Your task to perform on an android device: toggle javascript in the chrome app Image 0: 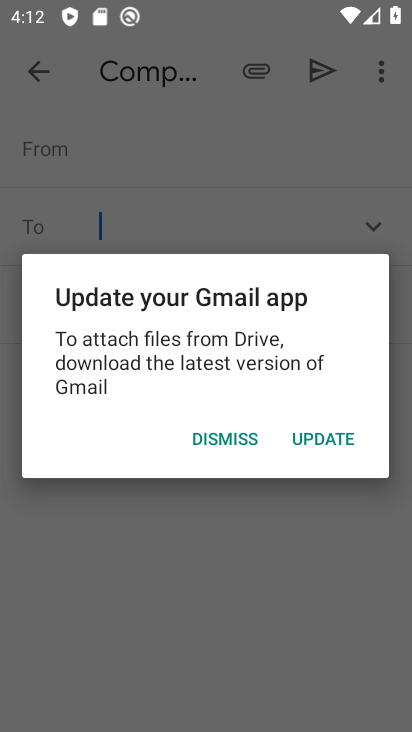
Step 0: press back button
Your task to perform on an android device: toggle javascript in the chrome app Image 1: 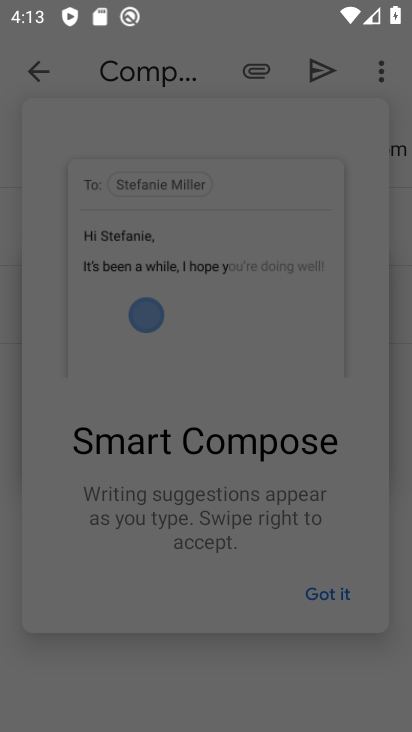
Step 1: press back button
Your task to perform on an android device: toggle javascript in the chrome app Image 2: 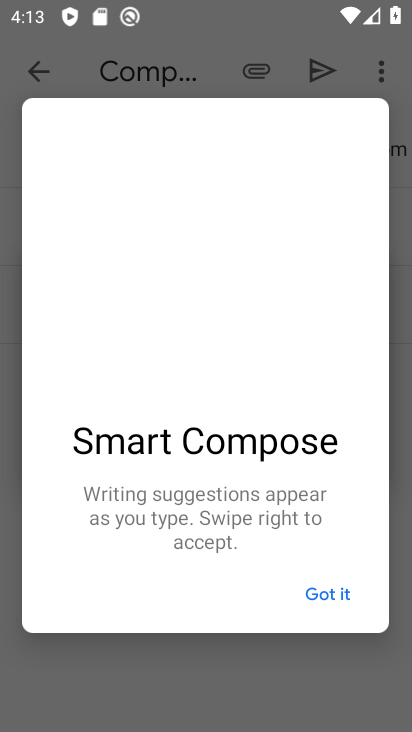
Step 2: press back button
Your task to perform on an android device: toggle javascript in the chrome app Image 3: 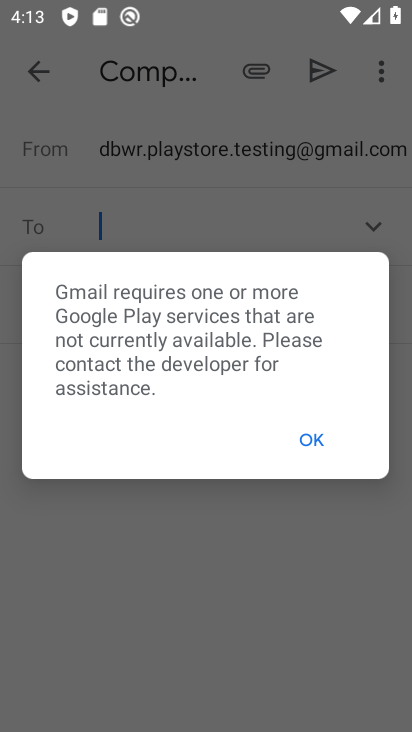
Step 3: press back button
Your task to perform on an android device: toggle javascript in the chrome app Image 4: 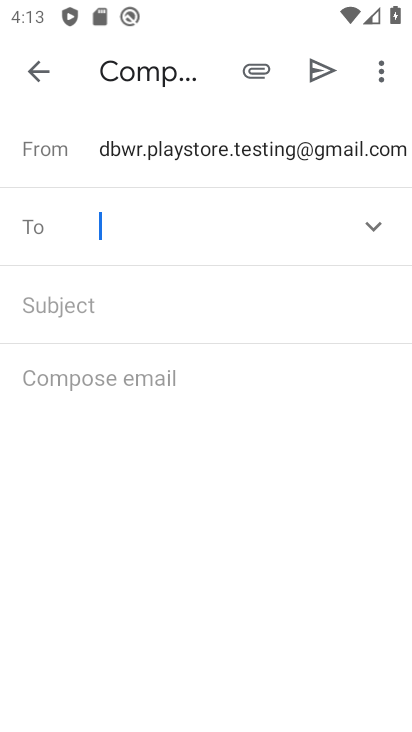
Step 4: press back button
Your task to perform on an android device: toggle javascript in the chrome app Image 5: 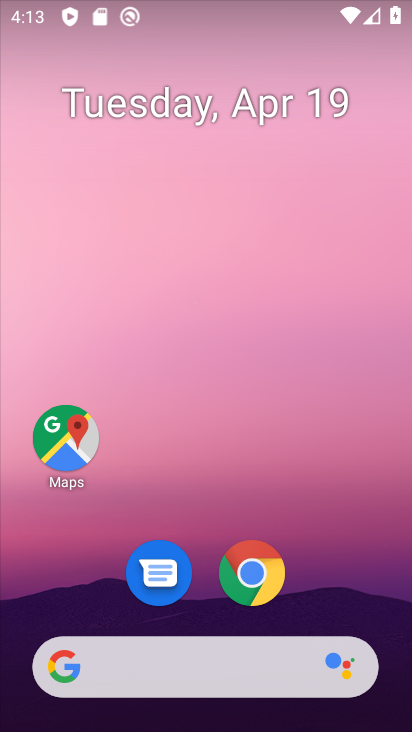
Step 5: click (270, 573)
Your task to perform on an android device: toggle javascript in the chrome app Image 6: 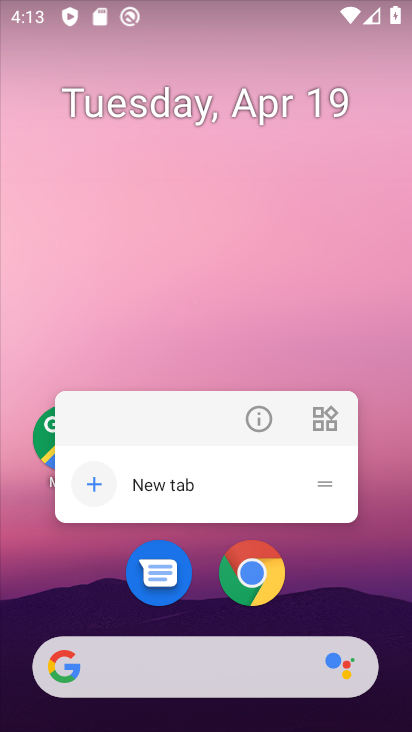
Step 6: click (279, 579)
Your task to perform on an android device: toggle javascript in the chrome app Image 7: 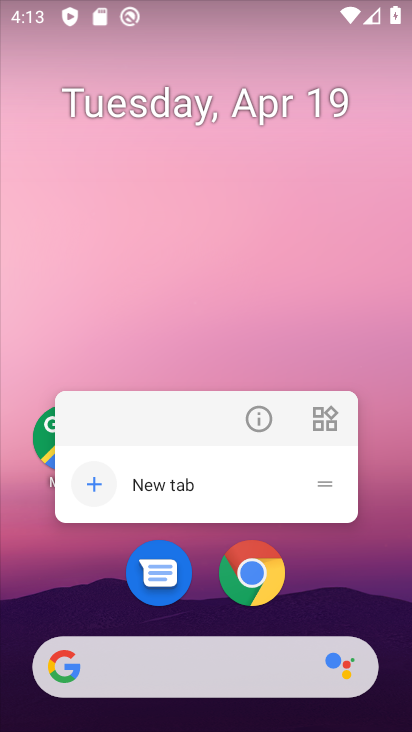
Step 7: click (268, 579)
Your task to perform on an android device: toggle javascript in the chrome app Image 8: 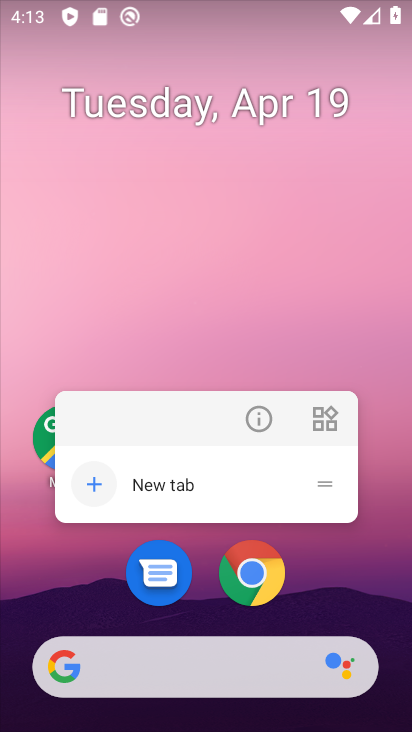
Step 8: click (264, 577)
Your task to perform on an android device: toggle javascript in the chrome app Image 9: 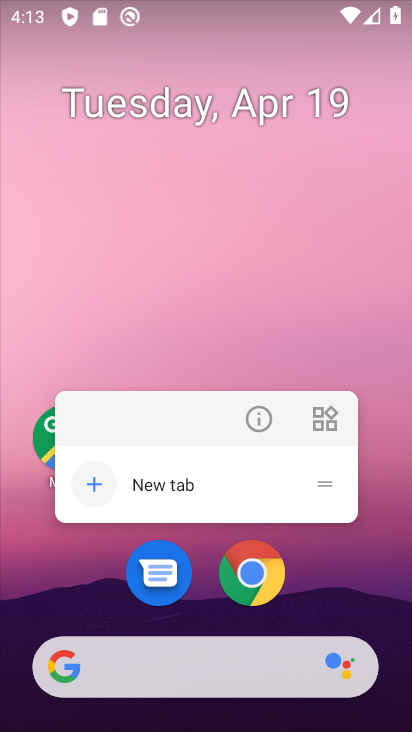
Step 9: click (250, 578)
Your task to perform on an android device: toggle javascript in the chrome app Image 10: 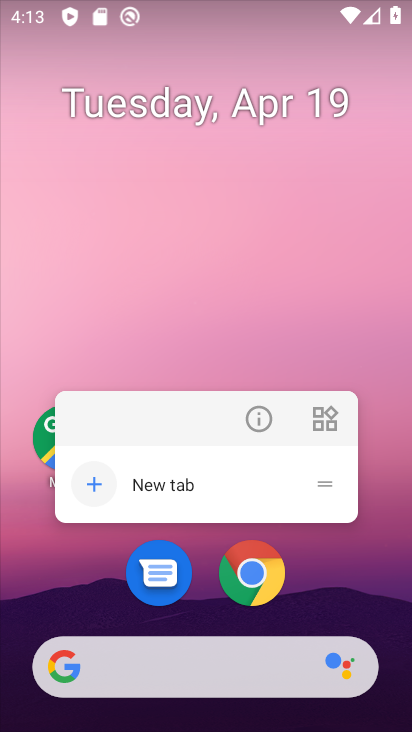
Step 10: click (249, 577)
Your task to perform on an android device: toggle javascript in the chrome app Image 11: 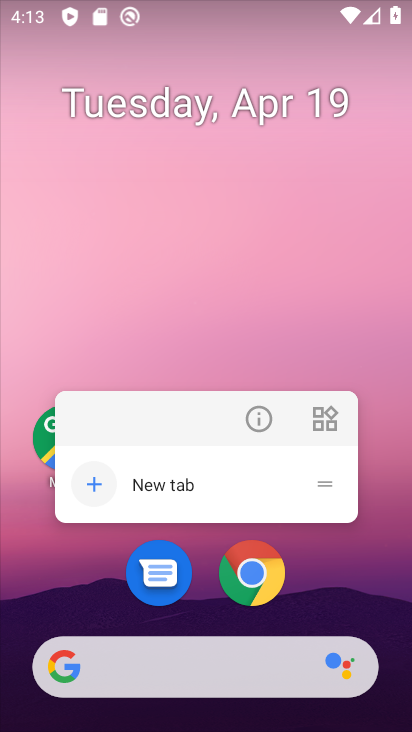
Step 11: click (249, 575)
Your task to perform on an android device: toggle javascript in the chrome app Image 12: 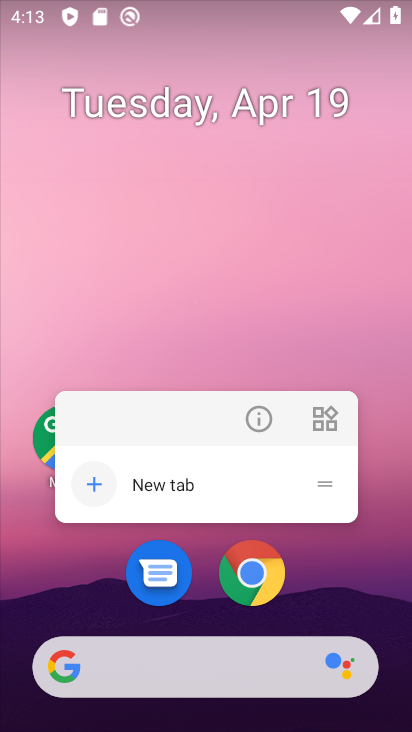
Step 12: click (249, 575)
Your task to perform on an android device: toggle javascript in the chrome app Image 13: 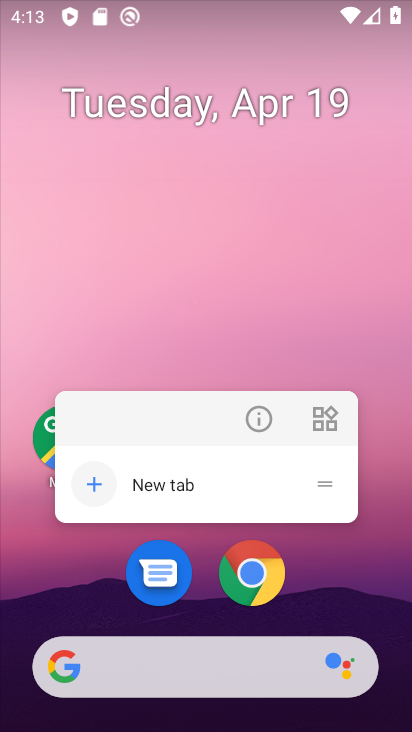
Step 13: click (249, 575)
Your task to perform on an android device: toggle javascript in the chrome app Image 14: 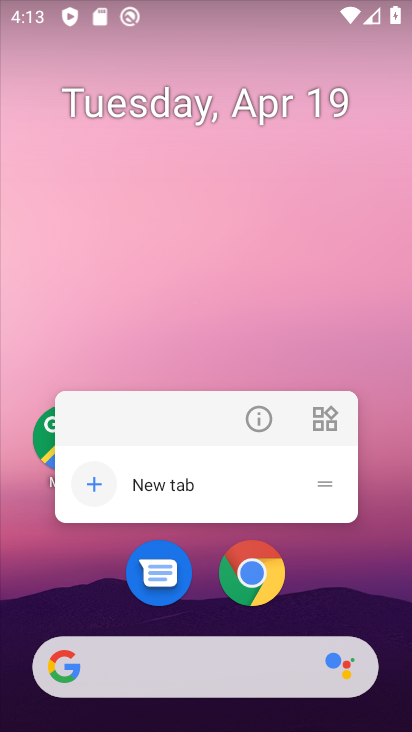
Step 14: click (249, 575)
Your task to perform on an android device: toggle javascript in the chrome app Image 15: 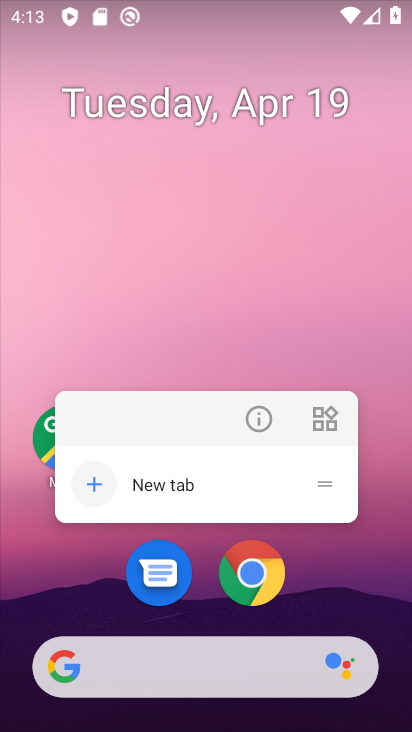
Step 15: click (249, 575)
Your task to perform on an android device: toggle javascript in the chrome app Image 16: 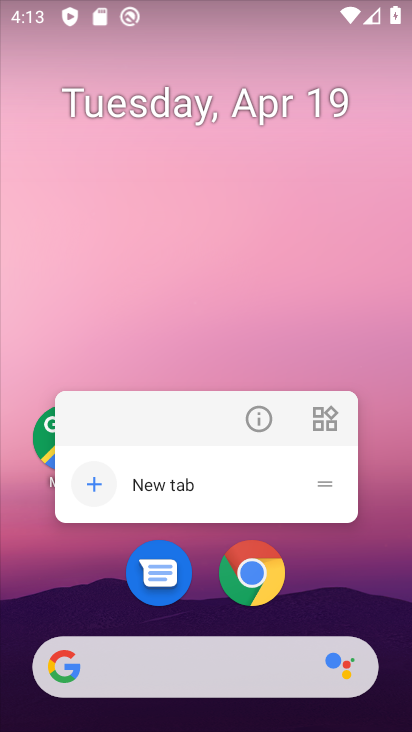
Step 16: click (249, 575)
Your task to perform on an android device: toggle javascript in the chrome app Image 17: 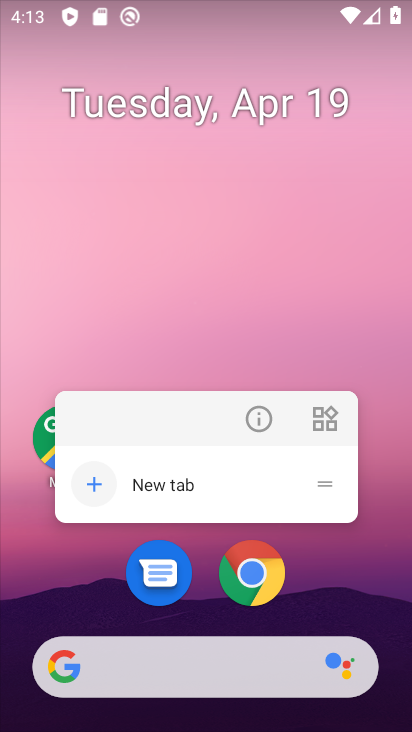
Step 17: click (252, 552)
Your task to perform on an android device: toggle javascript in the chrome app Image 18: 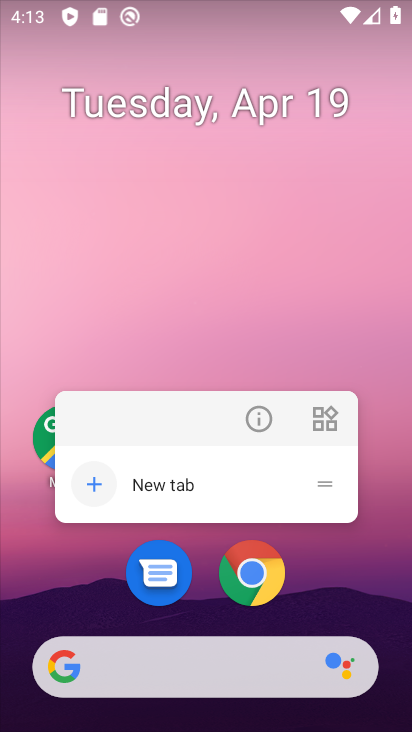
Step 18: click (244, 587)
Your task to perform on an android device: toggle javascript in the chrome app Image 19: 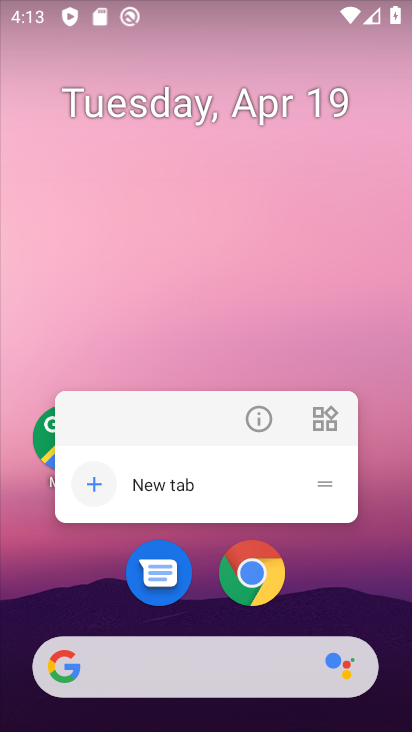
Step 19: click (280, 576)
Your task to perform on an android device: toggle javascript in the chrome app Image 20: 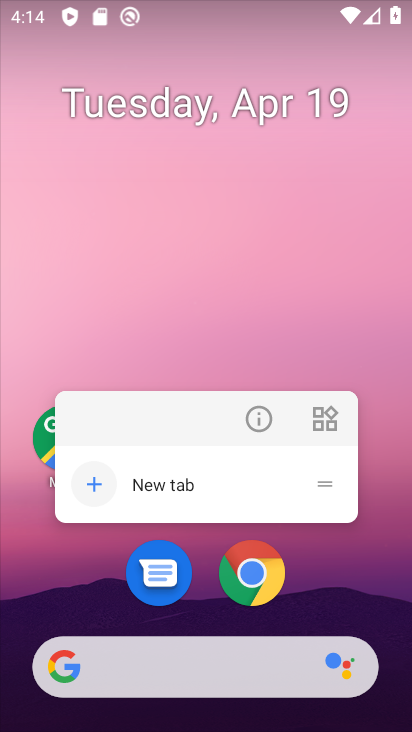
Step 20: drag from (338, 572) to (408, 384)
Your task to perform on an android device: toggle javascript in the chrome app Image 21: 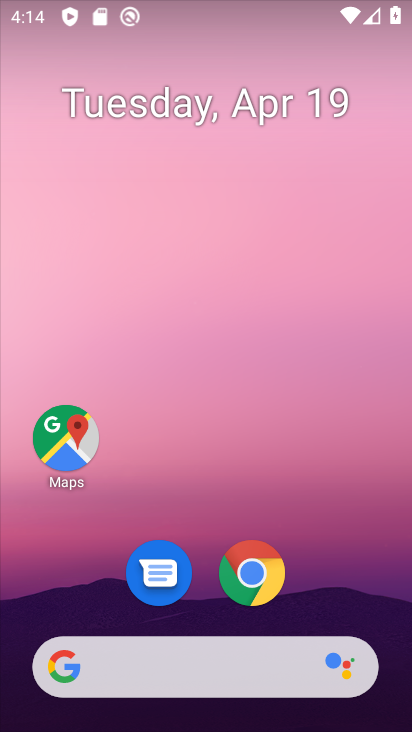
Step 21: drag from (308, 543) to (388, 144)
Your task to perform on an android device: toggle javascript in the chrome app Image 22: 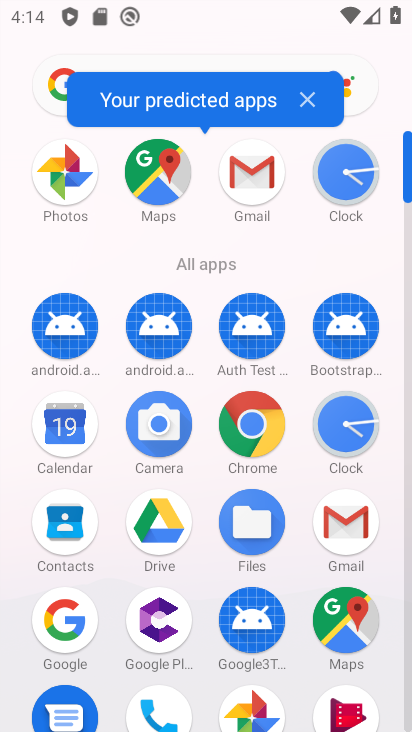
Step 22: click (248, 430)
Your task to perform on an android device: toggle javascript in the chrome app Image 23: 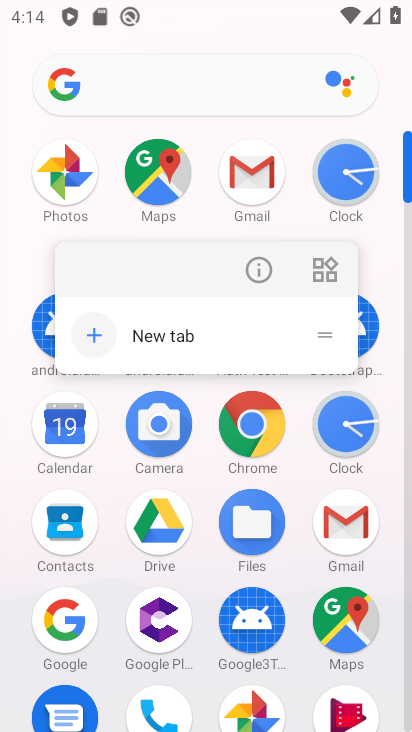
Step 23: click (250, 437)
Your task to perform on an android device: toggle javascript in the chrome app Image 24: 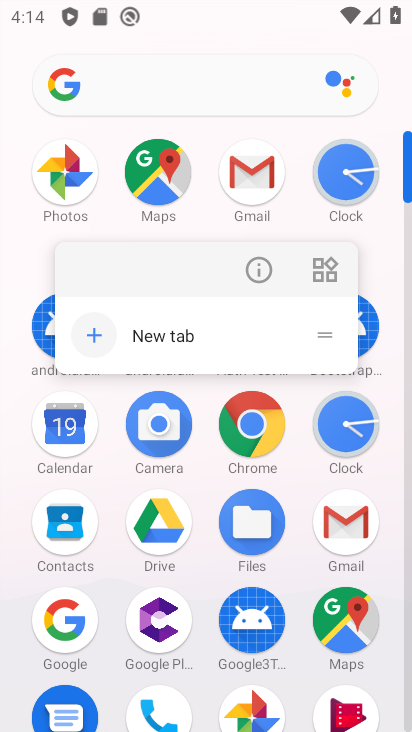
Step 24: click (266, 418)
Your task to perform on an android device: toggle javascript in the chrome app Image 25: 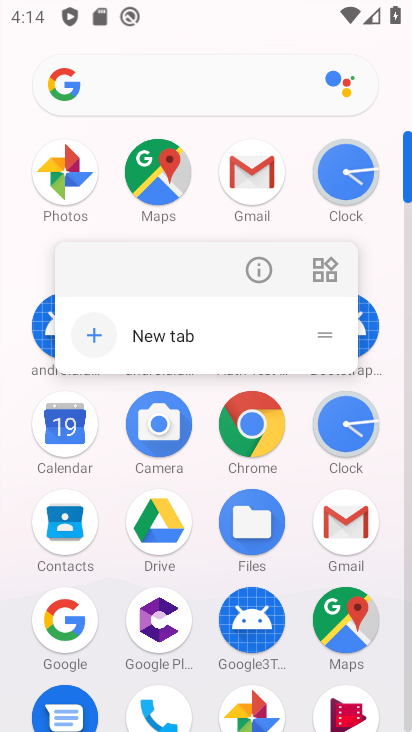
Step 25: click (233, 402)
Your task to perform on an android device: toggle javascript in the chrome app Image 26: 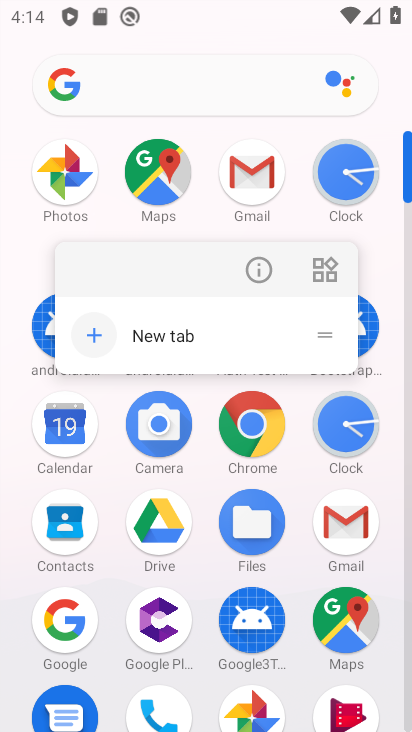
Step 26: click (256, 430)
Your task to perform on an android device: toggle javascript in the chrome app Image 27: 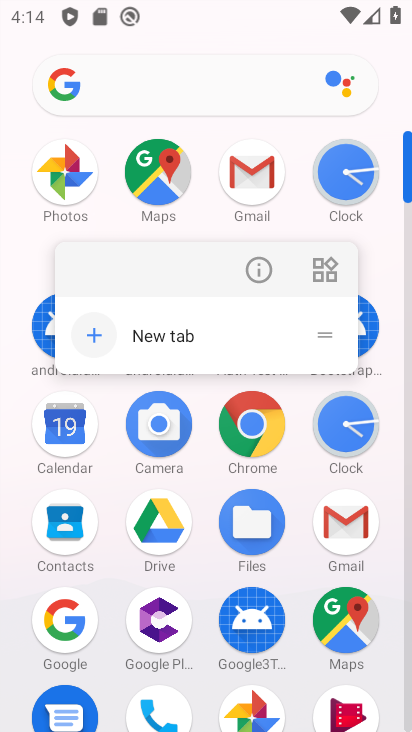
Step 27: click (255, 429)
Your task to perform on an android device: toggle javascript in the chrome app Image 28: 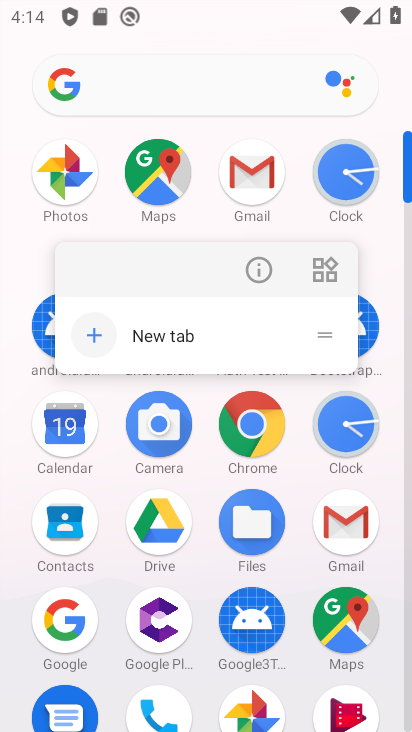
Step 28: click (265, 431)
Your task to perform on an android device: toggle javascript in the chrome app Image 29: 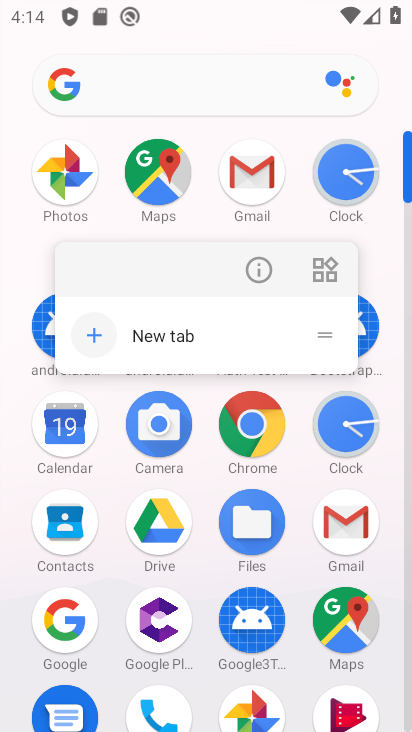
Step 29: click (262, 445)
Your task to perform on an android device: toggle javascript in the chrome app Image 30: 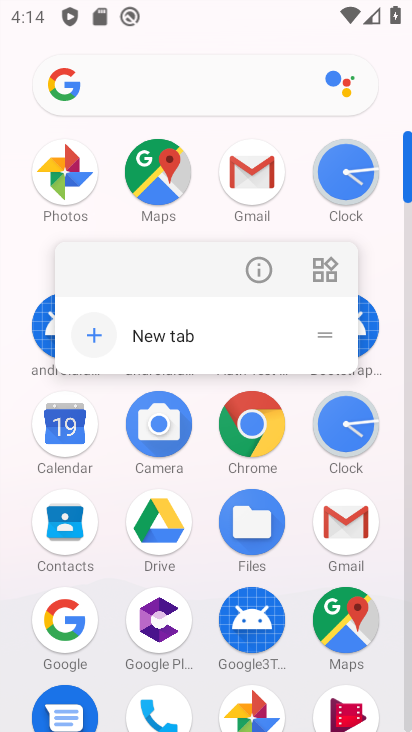
Step 30: click (260, 427)
Your task to perform on an android device: toggle javascript in the chrome app Image 31: 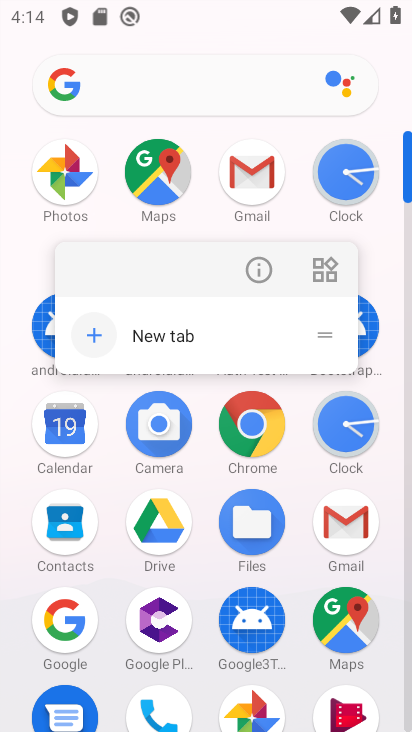
Step 31: click (250, 427)
Your task to perform on an android device: toggle javascript in the chrome app Image 32: 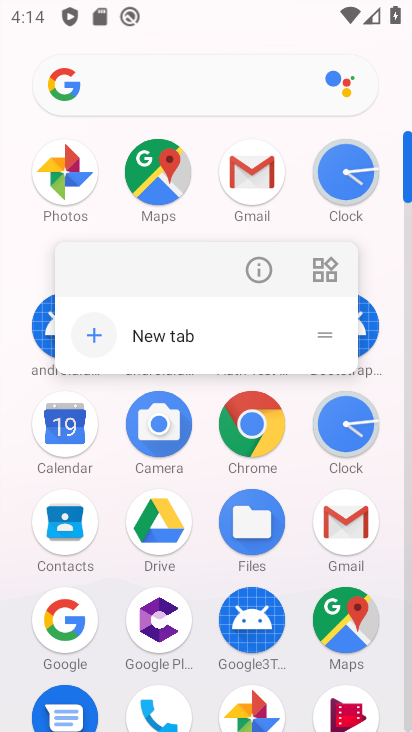
Step 32: click (244, 433)
Your task to perform on an android device: toggle javascript in the chrome app Image 33: 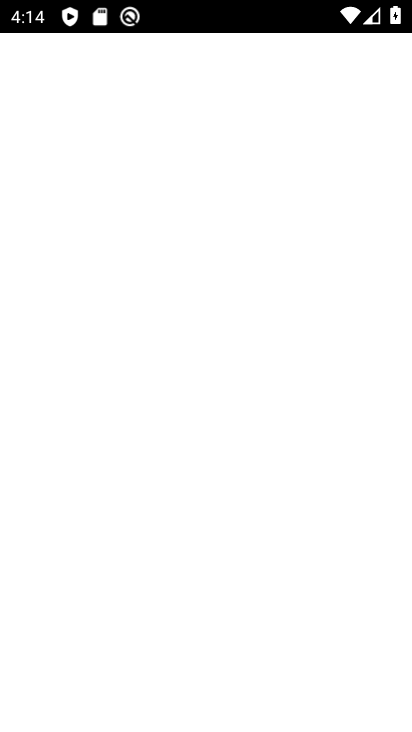
Step 33: click (244, 420)
Your task to perform on an android device: toggle javascript in the chrome app Image 34: 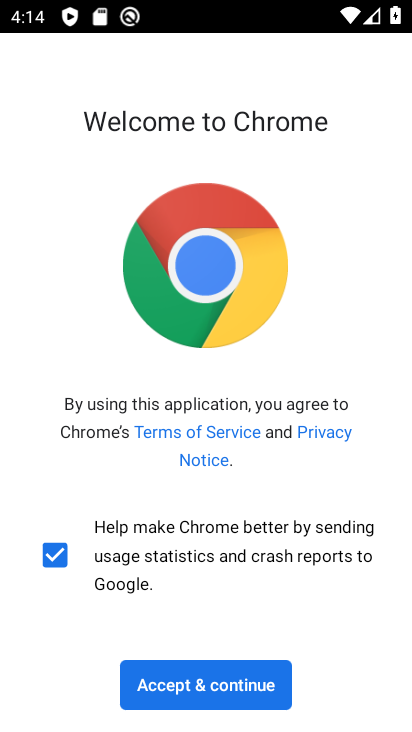
Step 34: click (241, 684)
Your task to perform on an android device: toggle javascript in the chrome app Image 35: 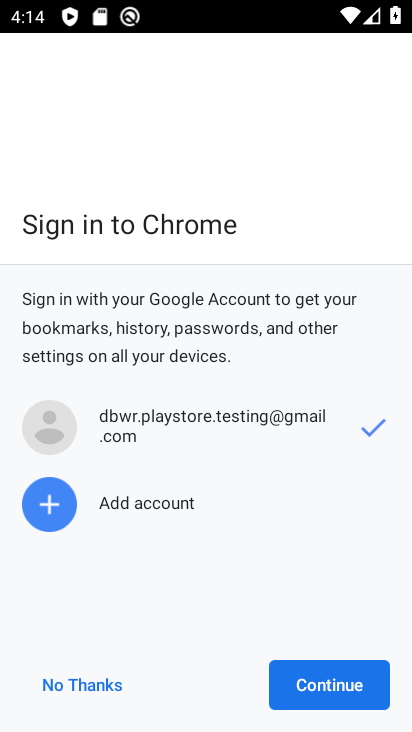
Step 35: click (333, 695)
Your task to perform on an android device: toggle javascript in the chrome app Image 36: 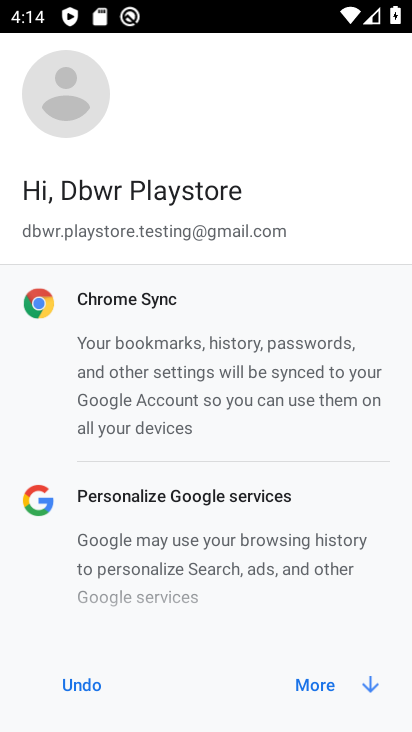
Step 36: click (333, 695)
Your task to perform on an android device: toggle javascript in the chrome app Image 37: 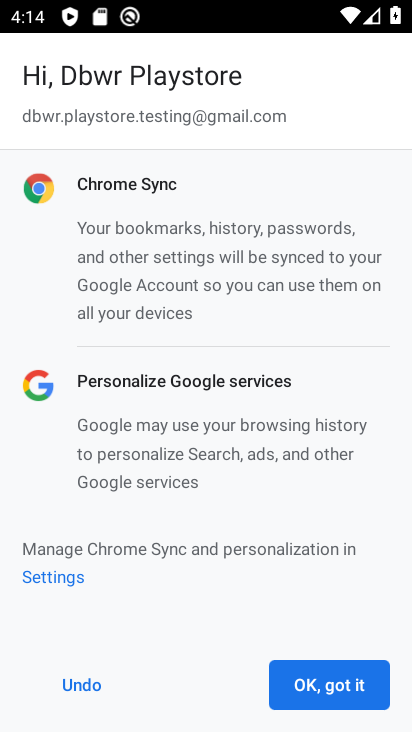
Step 37: click (333, 695)
Your task to perform on an android device: toggle javascript in the chrome app Image 38: 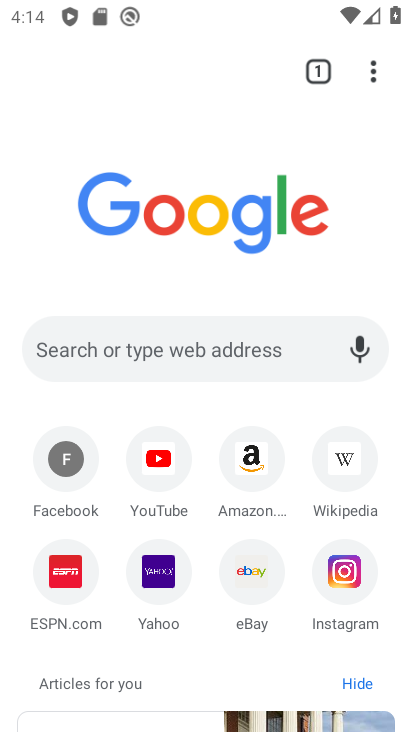
Step 38: click (385, 69)
Your task to perform on an android device: toggle javascript in the chrome app Image 39: 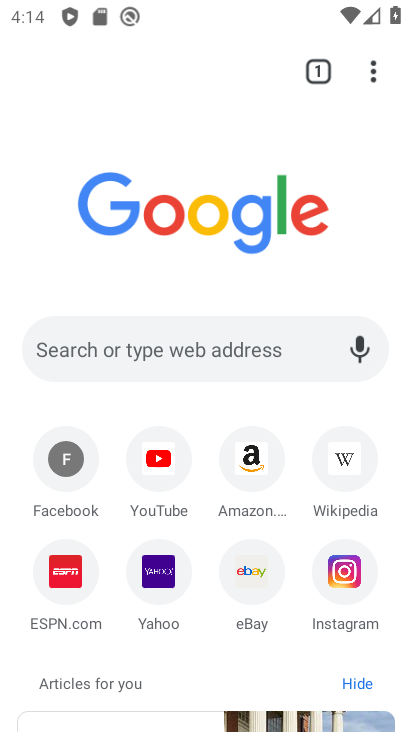
Step 39: drag from (377, 70) to (189, 610)
Your task to perform on an android device: toggle javascript in the chrome app Image 40: 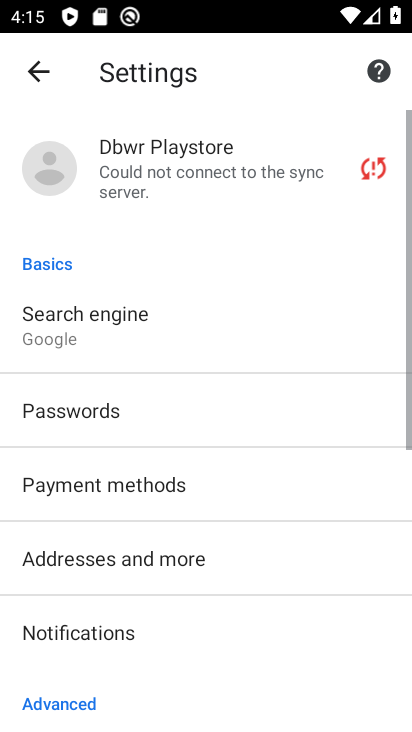
Step 40: drag from (199, 610) to (279, 259)
Your task to perform on an android device: toggle javascript in the chrome app Image 41: 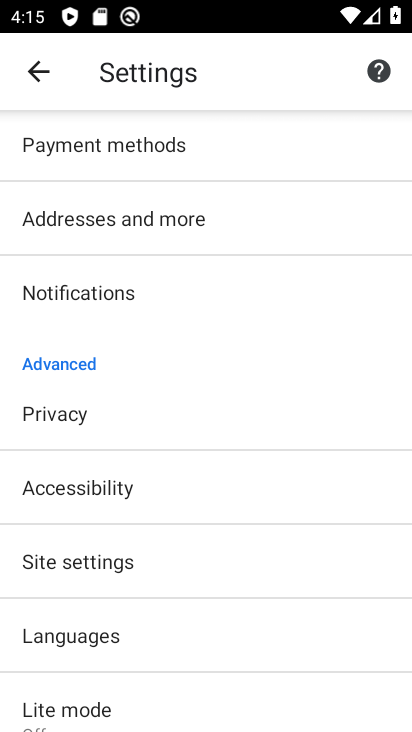
Step 41: click (171, 570)
Your task to perform on an android device: toggle javascript in the chrome app Image 42: 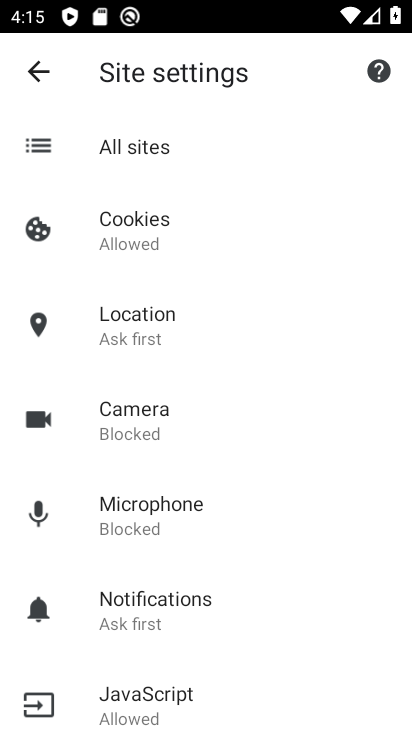
Step 42: drag from (145, 668) to (235, 458)
Your task to perform on an android device: toggle javascript in the chrome app Image 43: 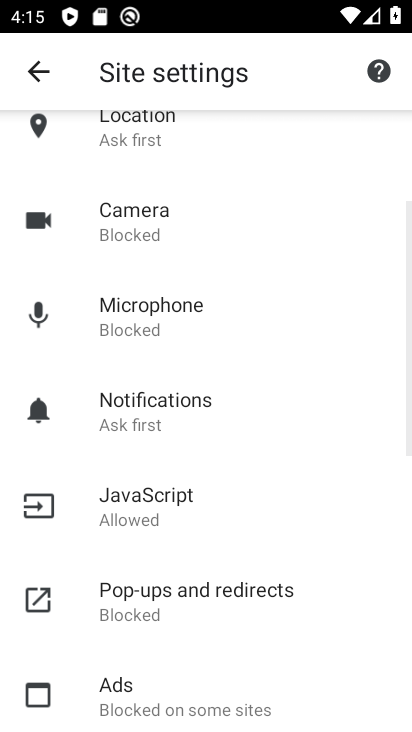
Step 43: click (208, 505)
Your task to perform on an android device: toggle javascript in the chrome app Image 44: 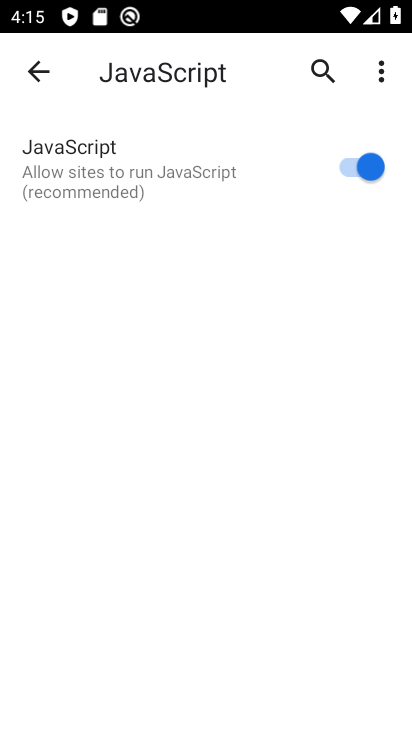
Step 44: click (344, 161)
Your task to perform on an android device: toggle javascript in the chrome app Image 45: 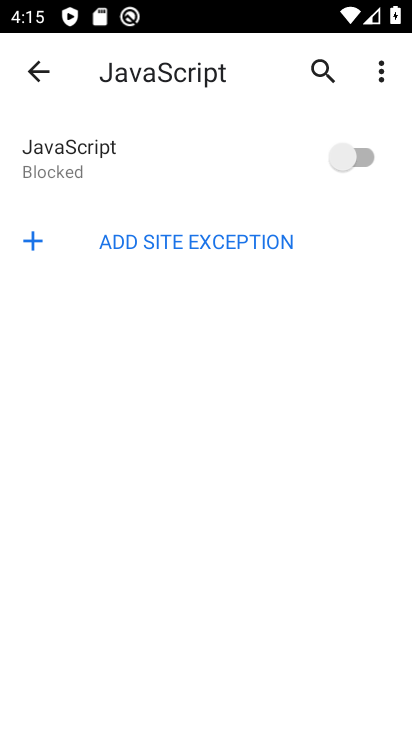
Step 45: task complete